Your task to perform on an android device: Search for pizza restaurants on Maps Image 0: 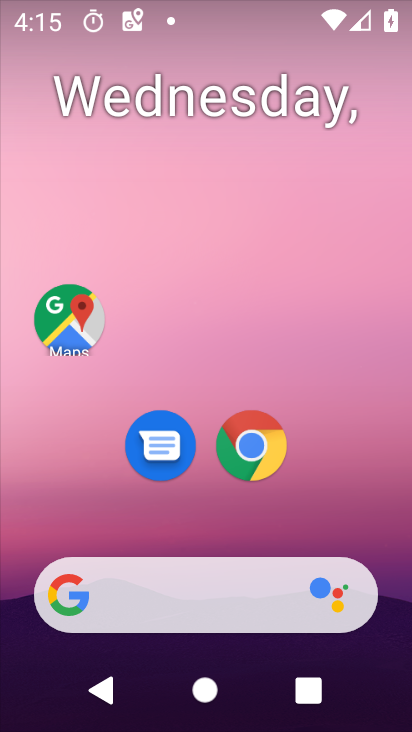
Step 0: click (68, 319)
Your task to perform on an android device: Search for pizza restaurants on Maps Image 1: 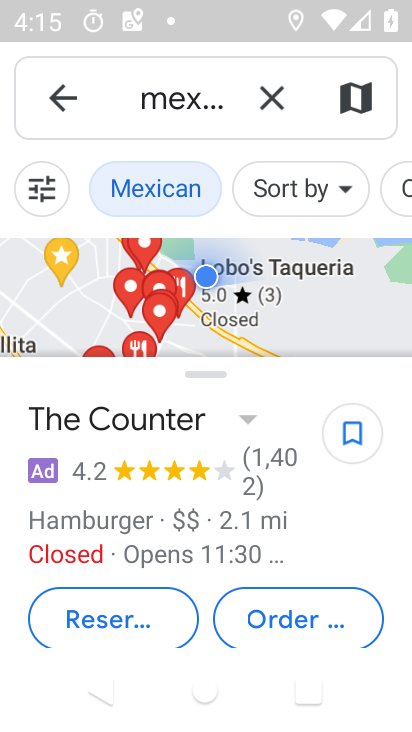
Step 1: click (269, 108)
Your task to perform on an android device: Search for pizza restaurants on Maps Image 2: 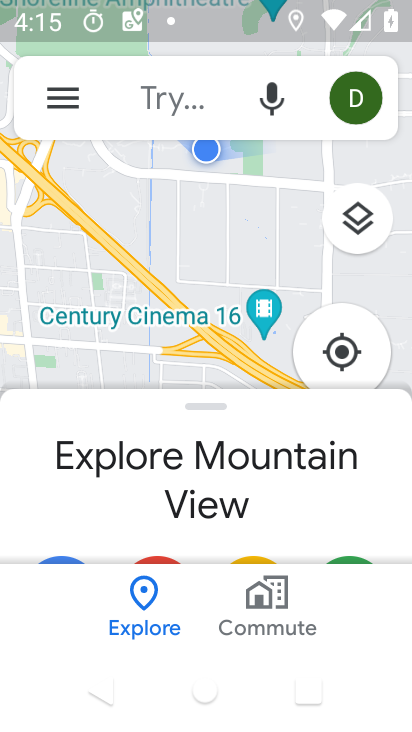
Step 2: click (218, 105)
Your task to perform on an android device: Search for pizza restaurants on Maps Image 3: 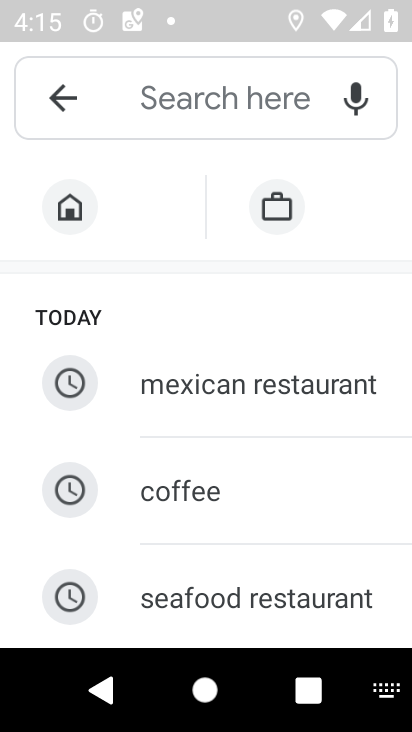
Step 3: drag from (266, 521) to (273, 74)
Your task to perform on an android device: Search for pizza restaurants on Maps Image 4: 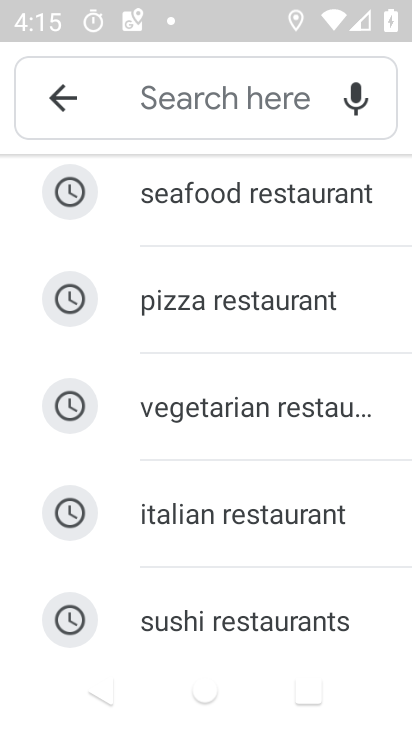
Step 4: click (167, 290)
Your task to perform on an android device: Search for pizza restaurants on Maps Image 5: 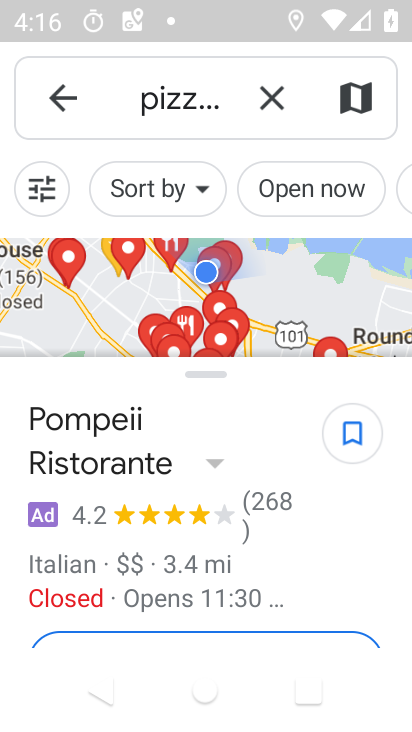
Step 5: task complete